Your task to perform on an android device: uninstall "File Manager" Image 0: 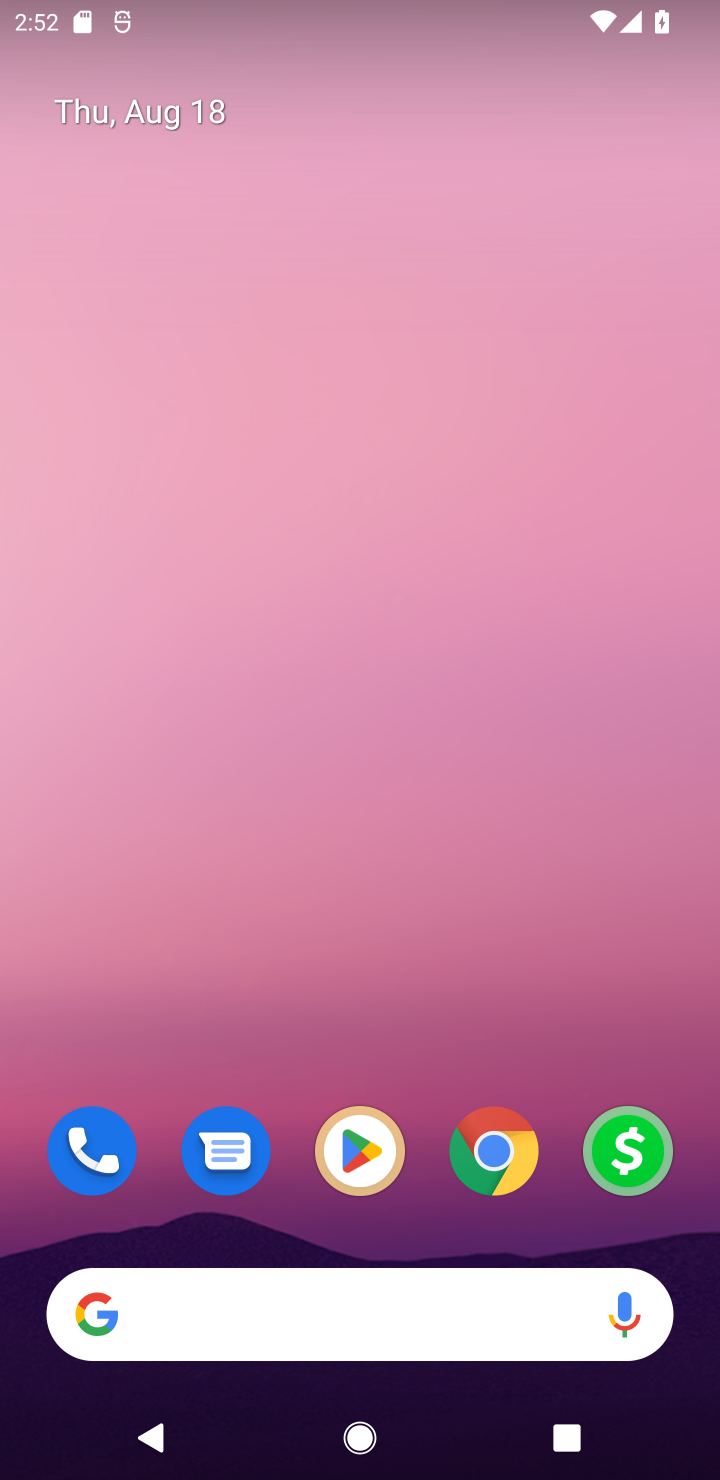
Step 0: click (369, 1137)
Your task to perform on an android device: uninstall "File Manager" Image 1: 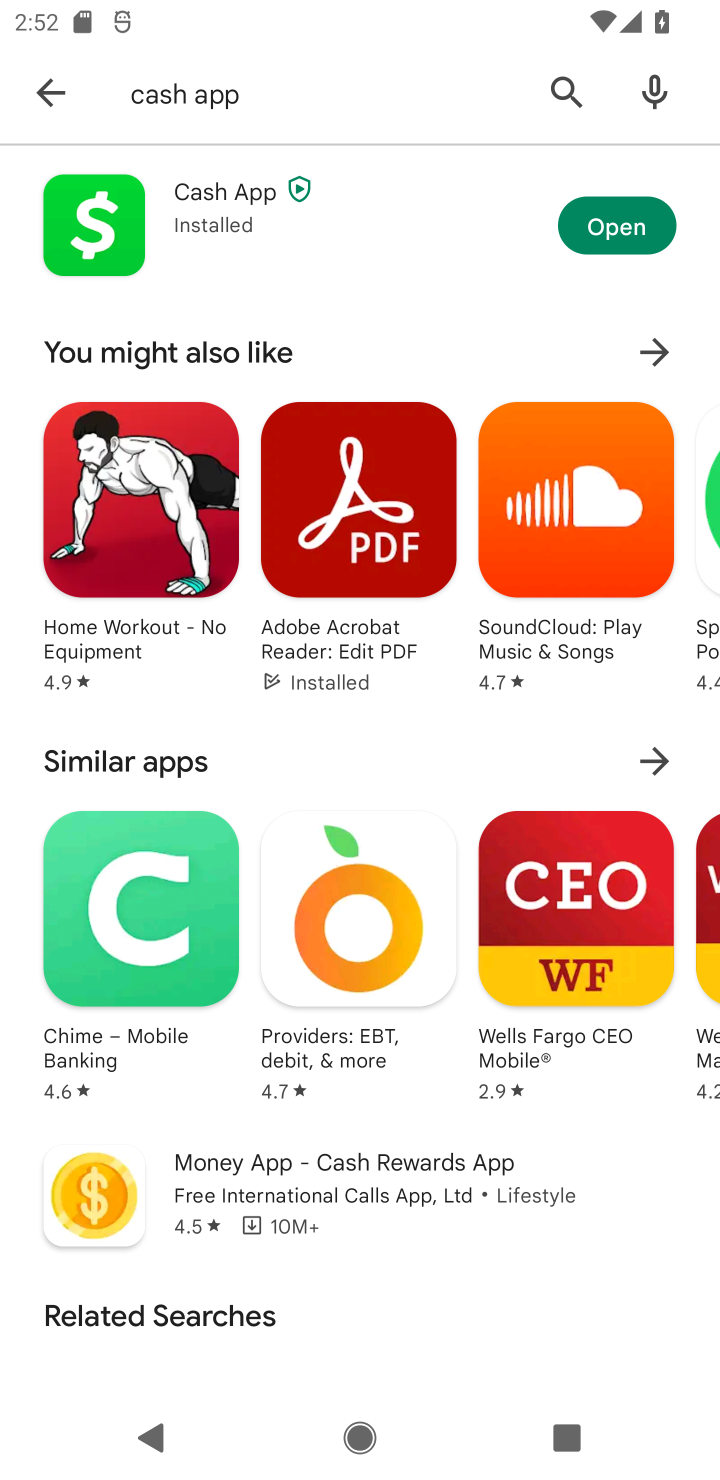
Step 1: click (555, 83)
Your task to perform on an android device: uninstall "File Manager" Image 2: 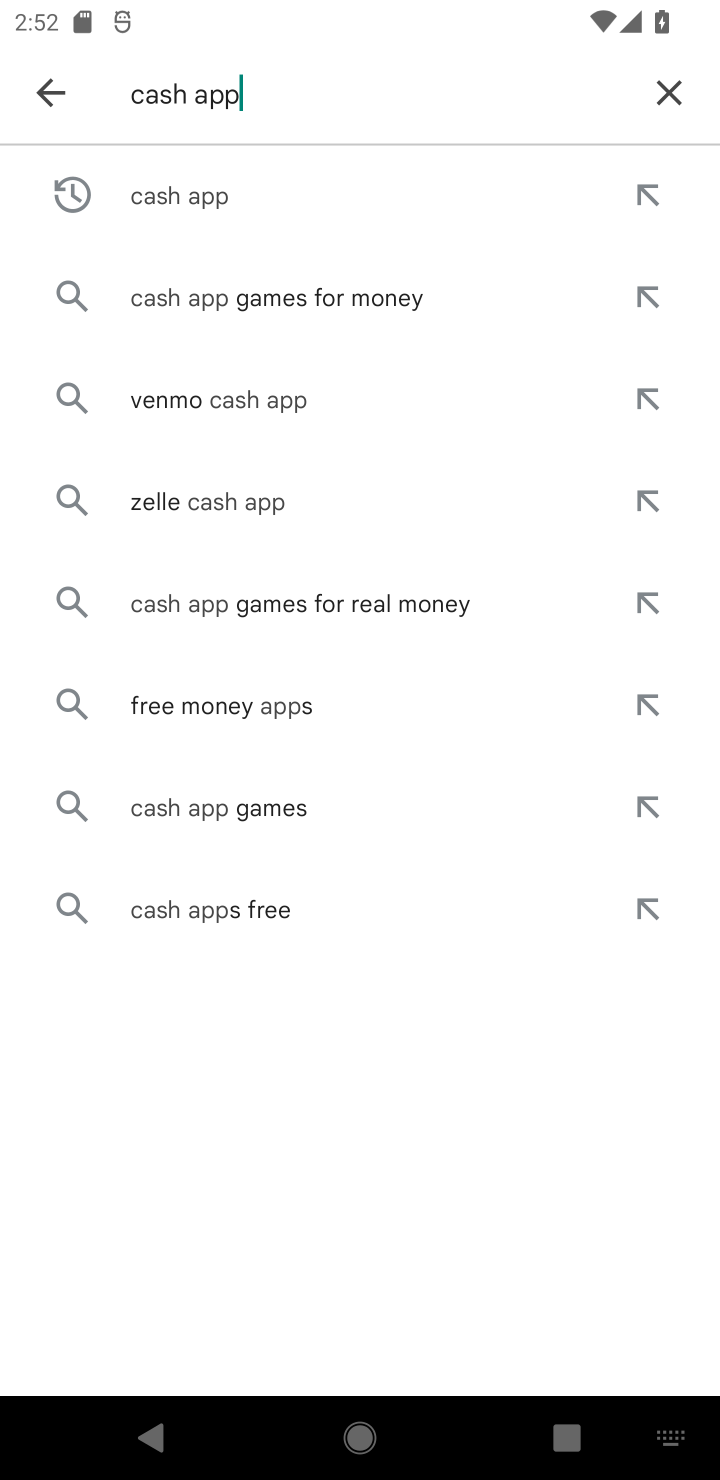
Step 2: click (676, 113)
Your task to perform on an android device: uninstall "File Manager" Image 3: 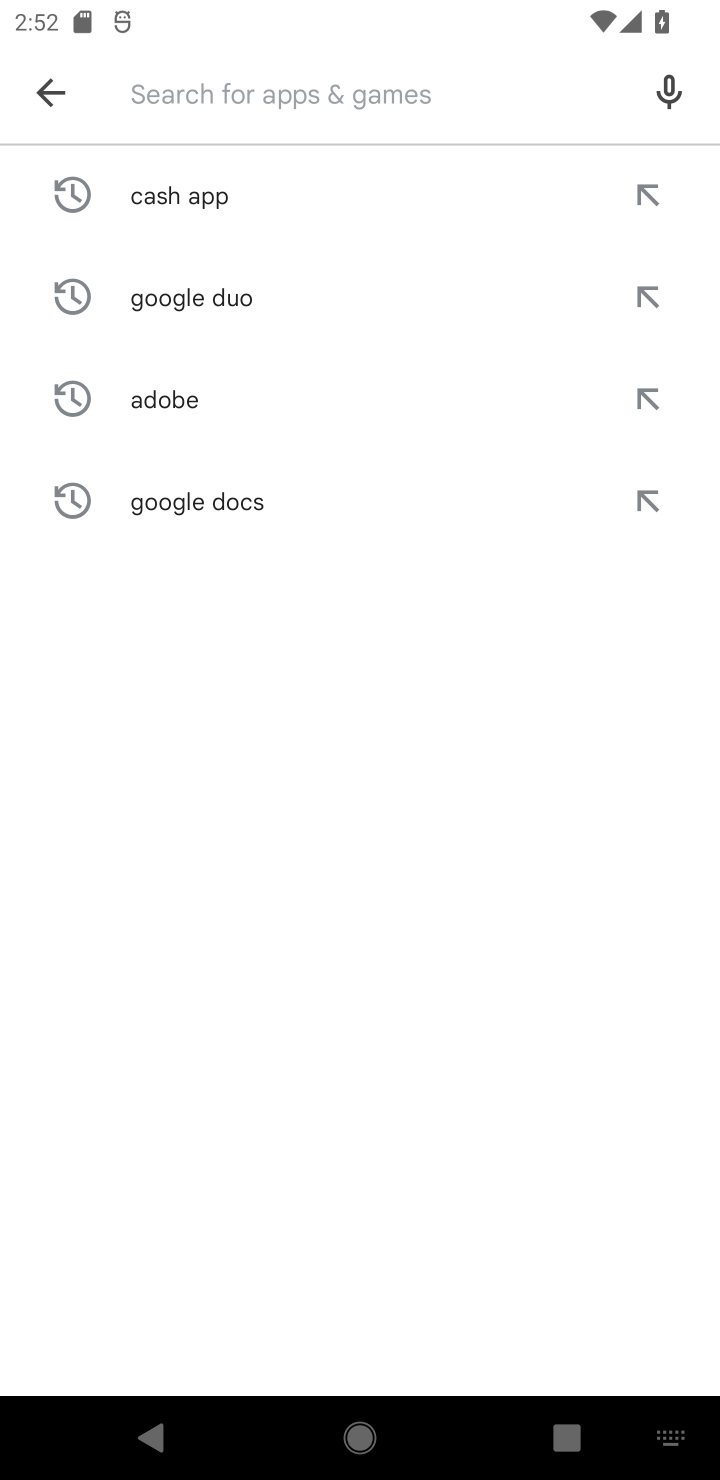
Step 3: type "File Manager"
Your task to perform on an android device: uninstall "File Manager" Image 4: 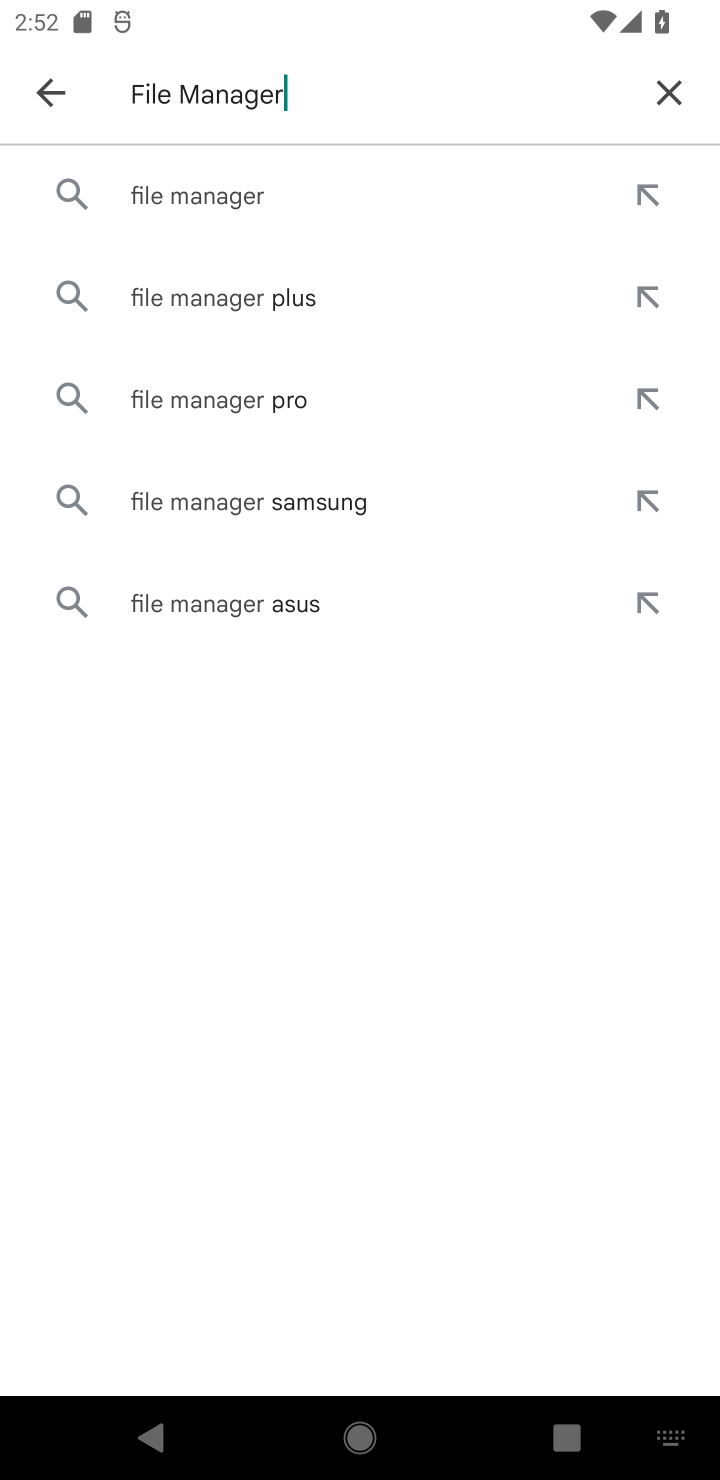
Step 4: click (313, 174)
Your task to perform on an android device: uninstall "File Manager" Image 5: 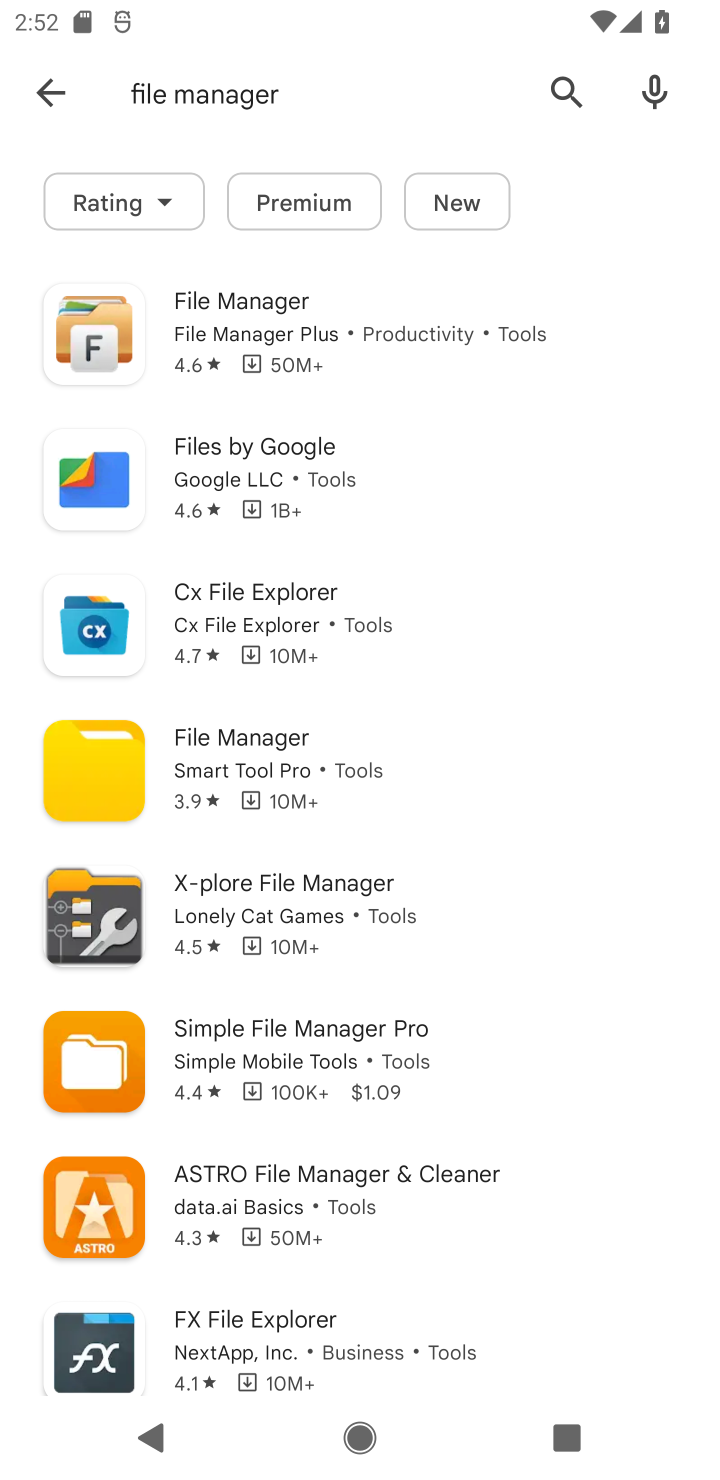
Step 5: click (349, 312)
Your task to perform on an android device: uninstall "File Manager" Image 6: 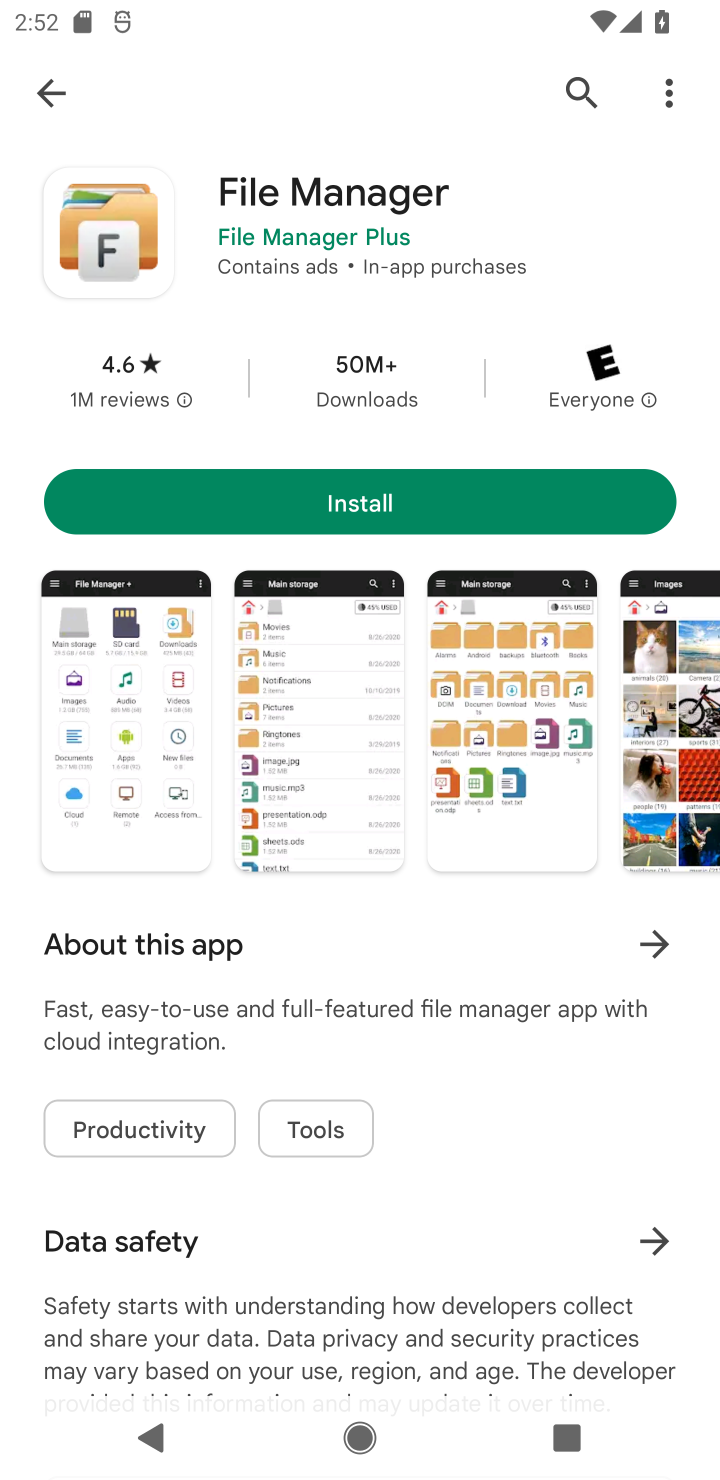
Step 6: click (49, 100)
Your task to perform on an android device: uninstall "File Manager" Image 7: 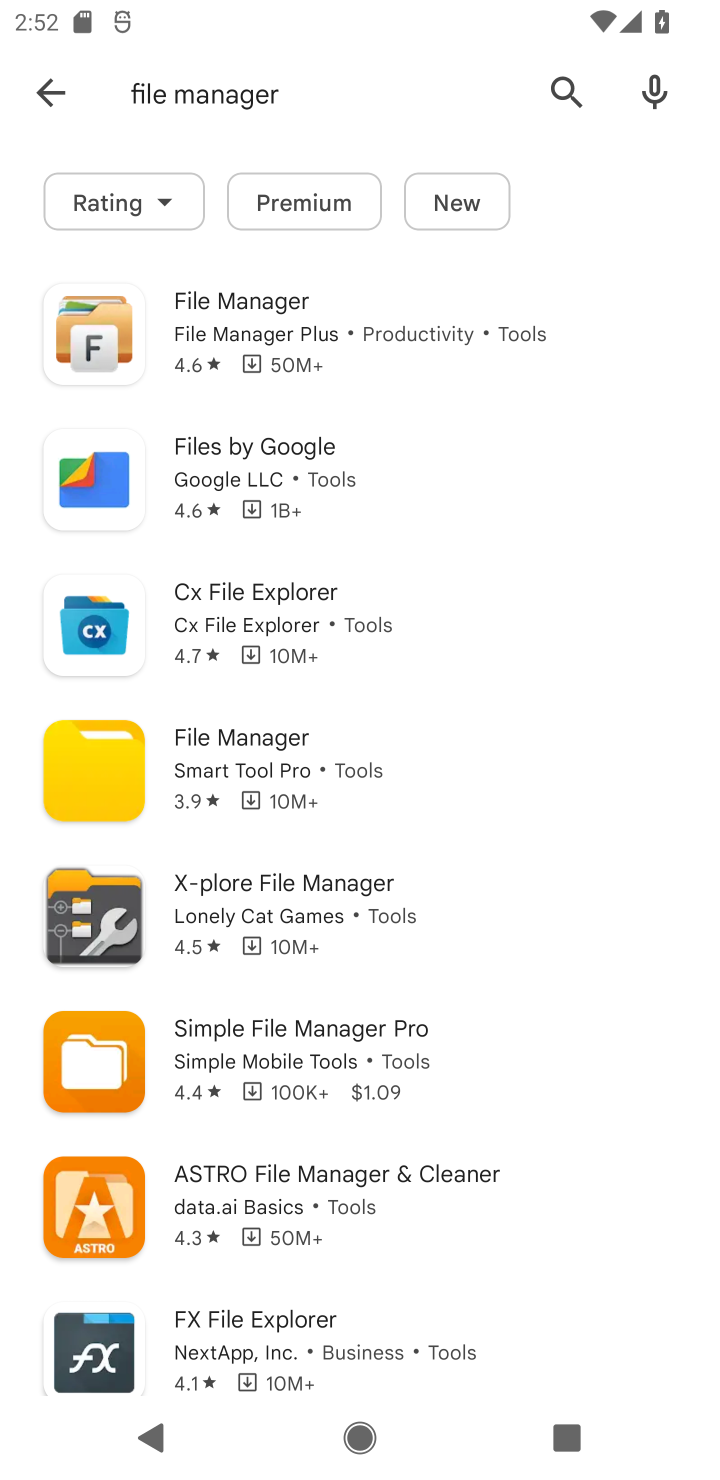
Step 7: click (435, 501)
Your task to perform on an android device: uninstall "File Manager" Image 8: 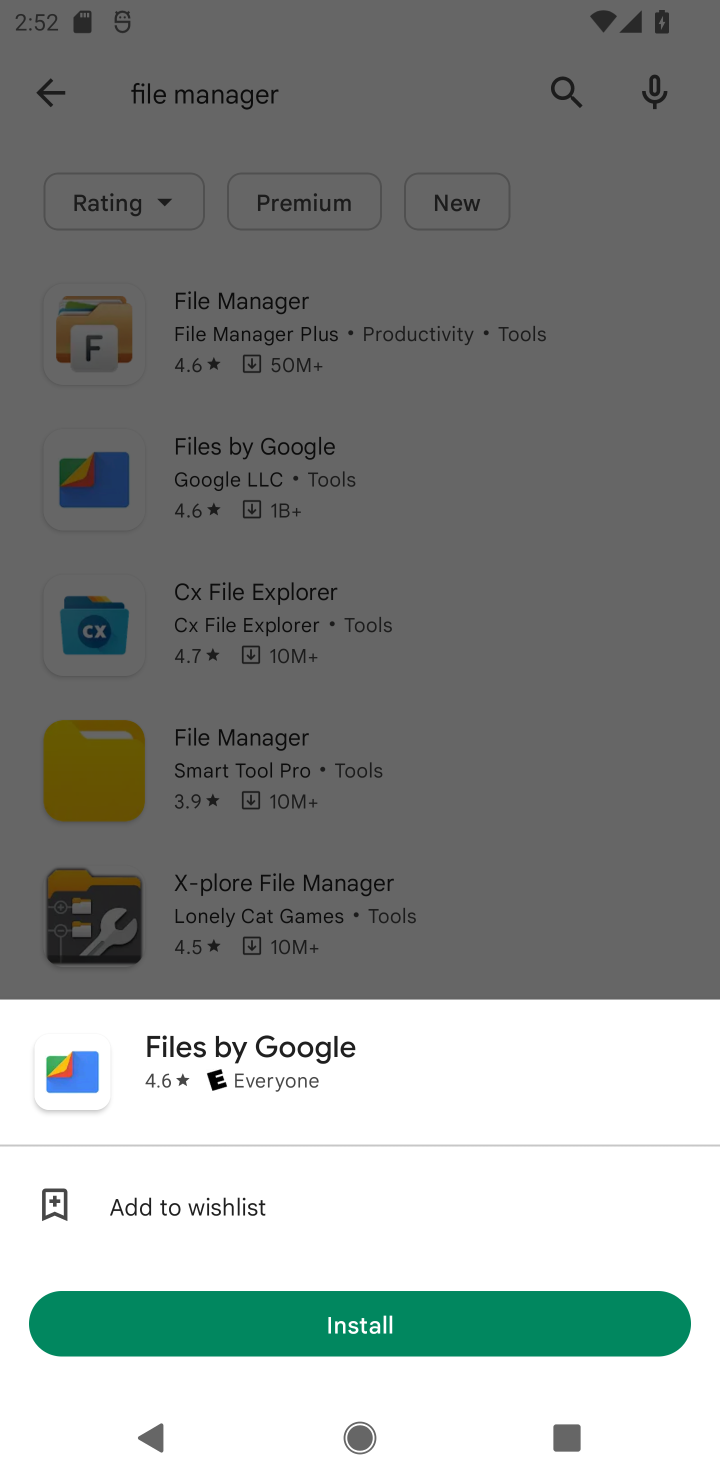
Step 8: click (506, 1348)
Your task to perform on an android device: uninstall "File Manager" Image 9: 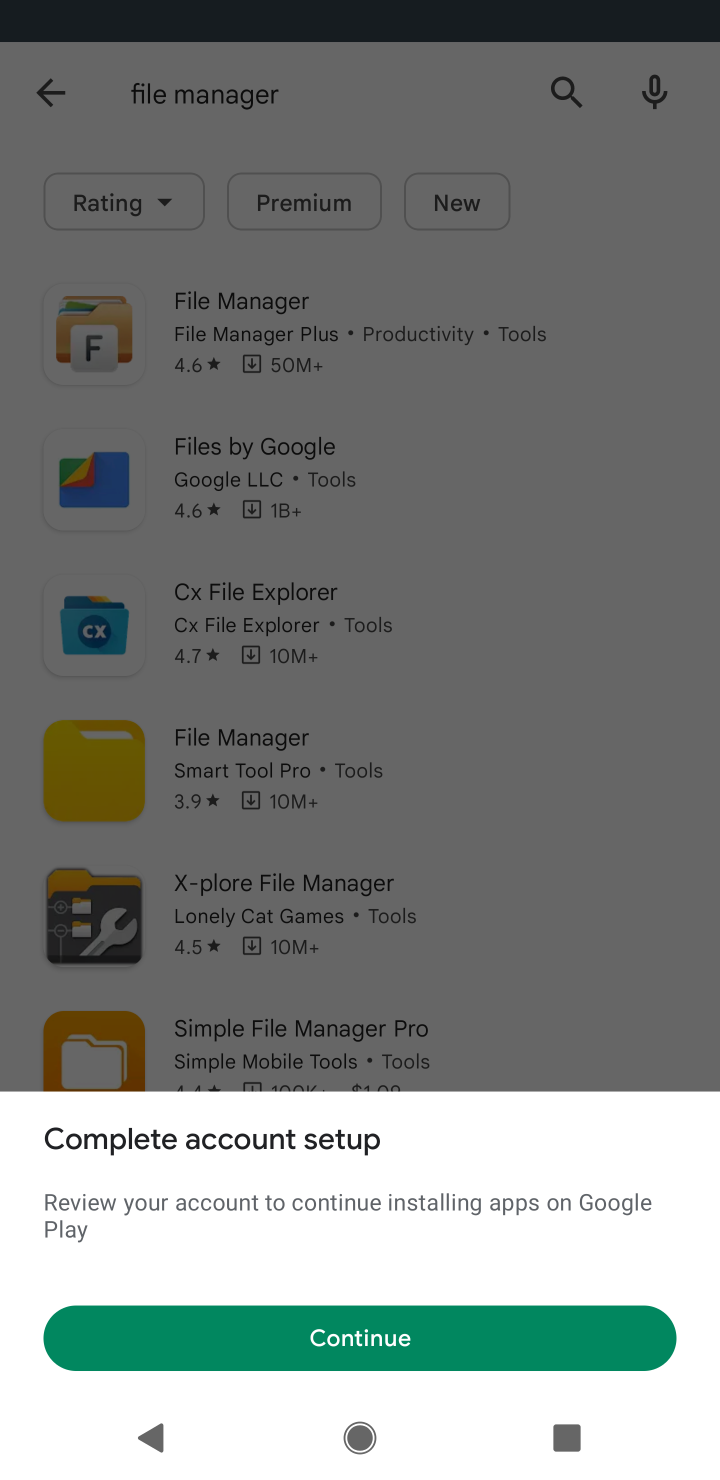
Step 9: click (187, 1362)
Your task to perform on an android device: uninstall "File Manager" Image 10: 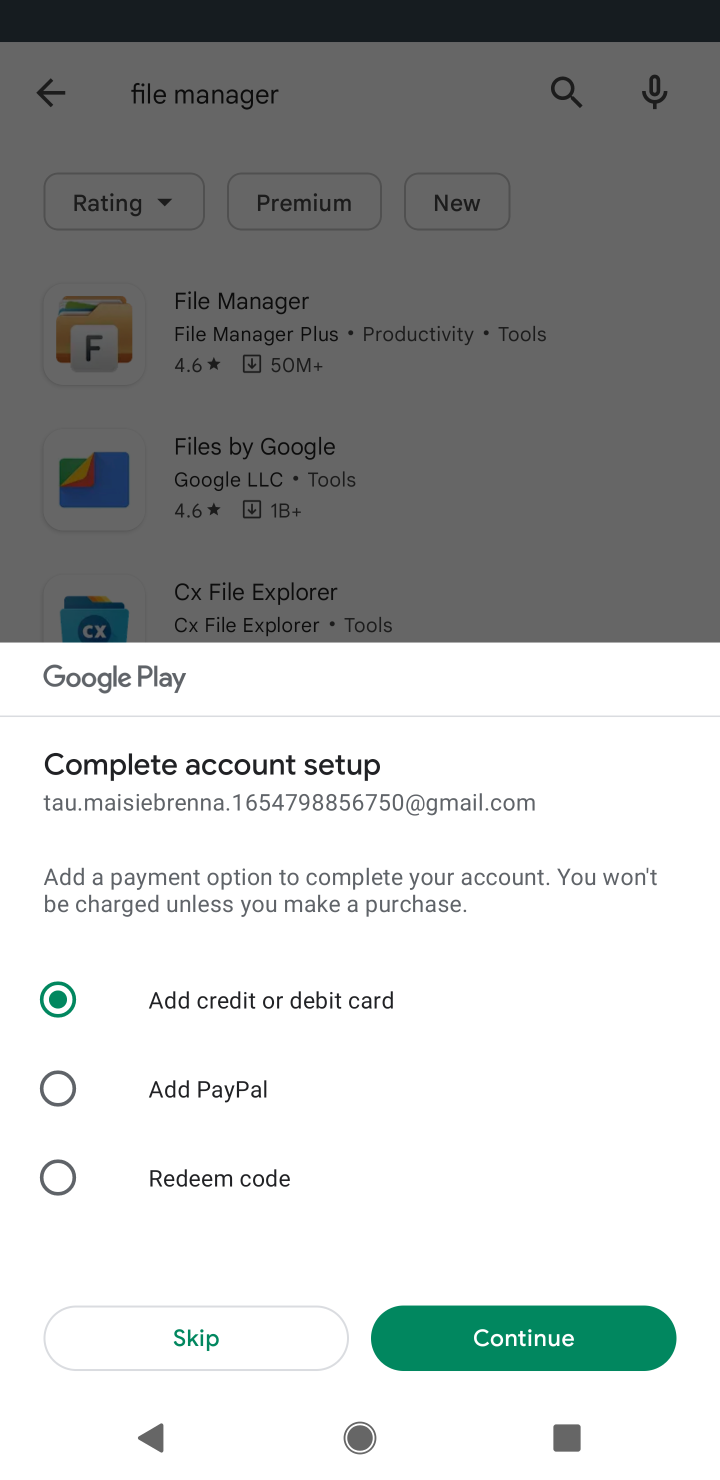
Step 10: click (201, 1339)
Your task to perform on an android device: uninstall "File Manager" Image 11: 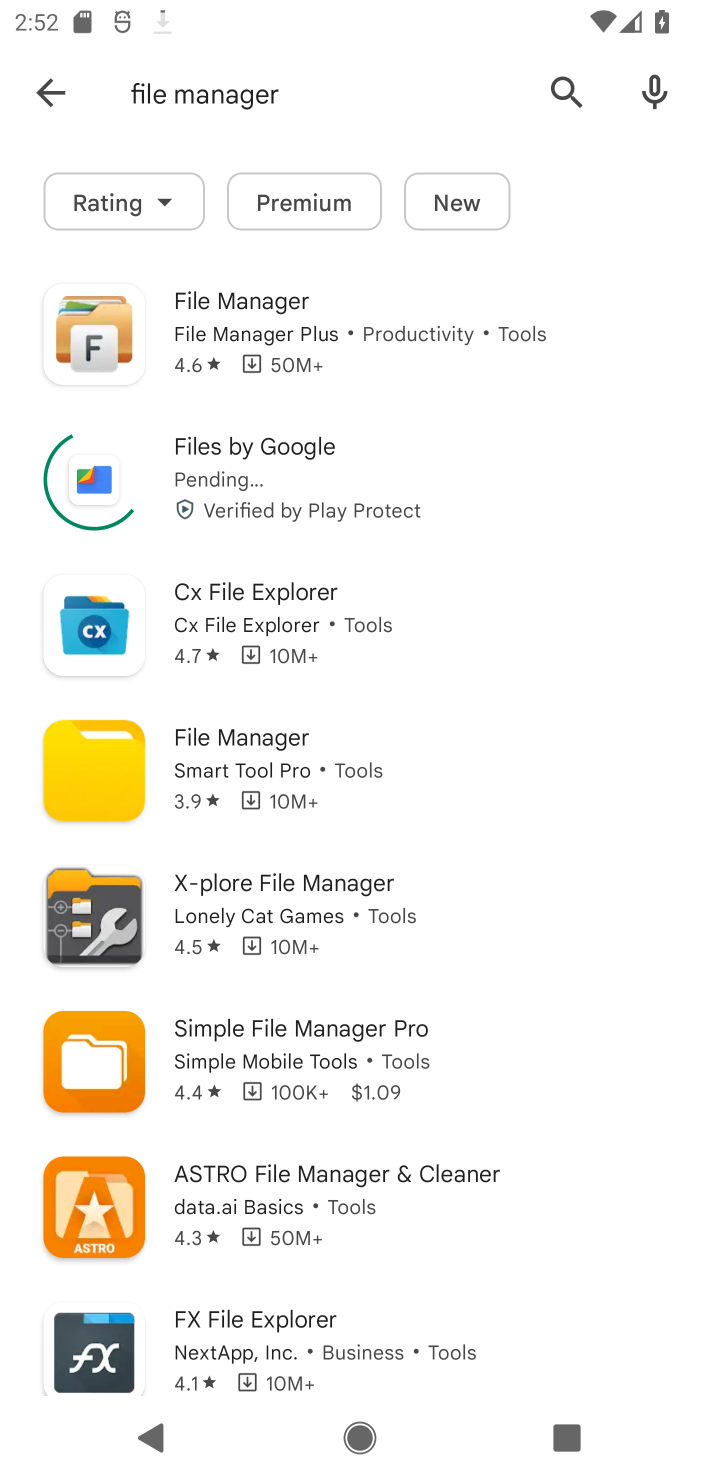
Step 11: task complete